Your task to perform on an android device: open wifi settings Image 0: 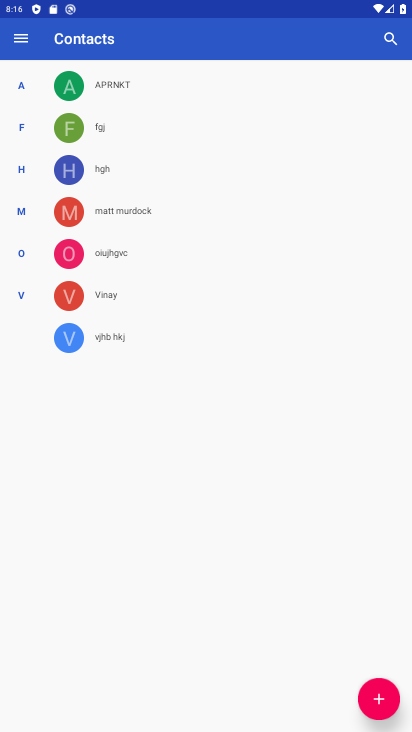
Step 0: press home button
Your task to perform on an android device: open wifi settings Image 1: 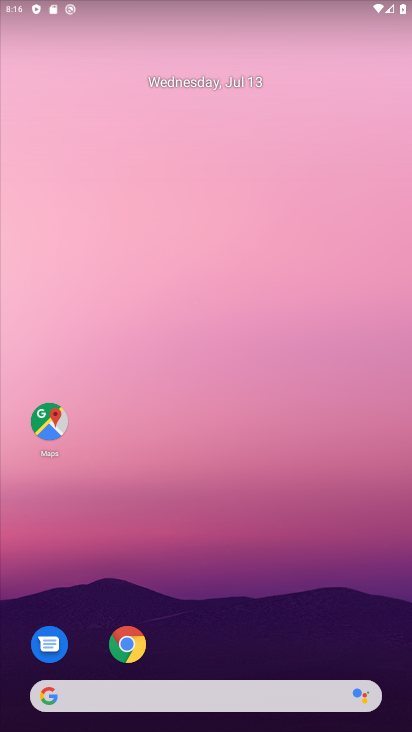
Step 1: drag from (215, 726) to (225, 194)
Your task to perform on an android device: open wifi settings Image 2: 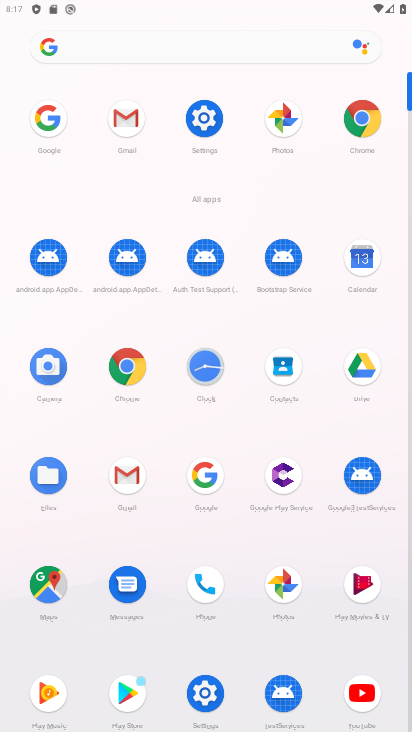
Step 2: click (204, 115)
Your task to perform on an android device: open wifi settings Image 3: 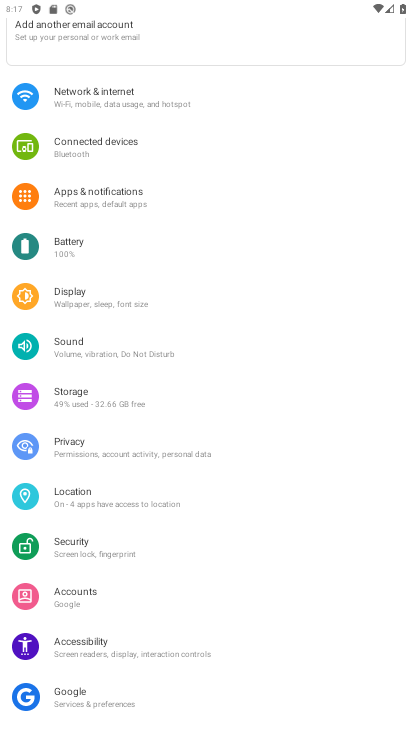
Step 3: click (205, 117)
Your task to perform on an android device: open wifi settings Image 4: 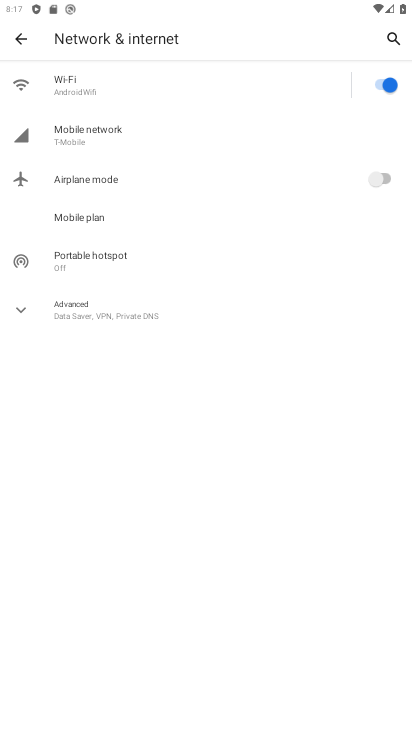
Step 4: click (71, 73)
Your task to perform on an android device: open wifi settings Image 5: 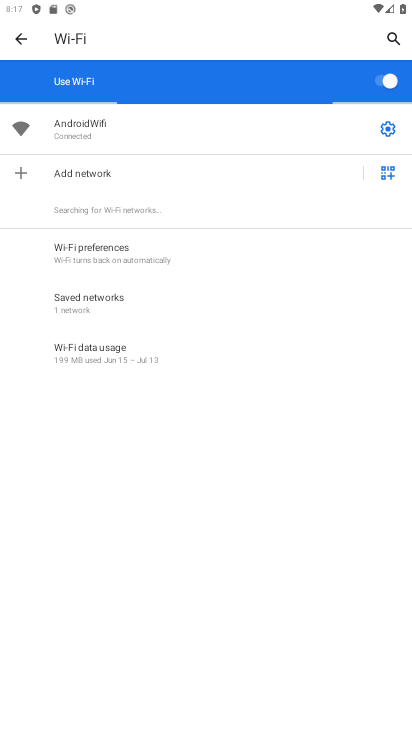
Step 5: task complete